Your task to perform on an android device: turn off priority inbox in the gmail app Image 0: 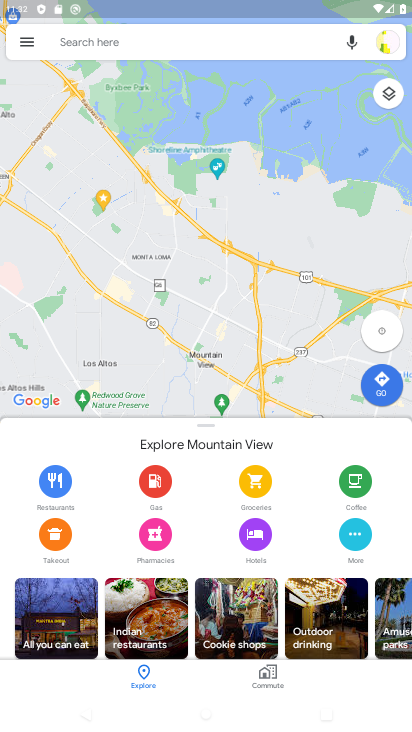
Step 0: press home button
Your task to perform on an android device: turn off priority inbox in the gmail app Image 1: 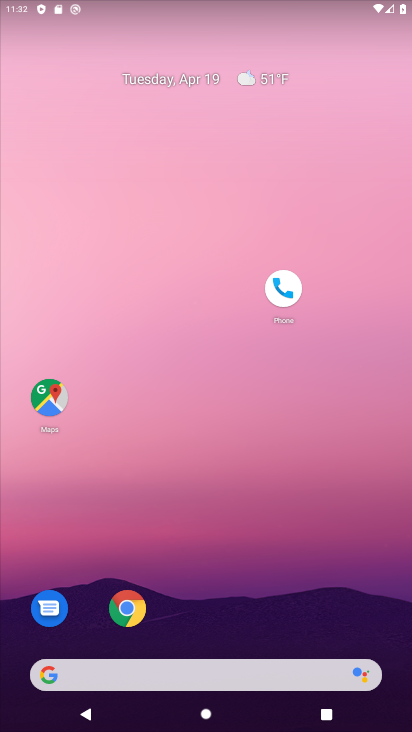
Step 1: drag from (188, 643) to (352, 0)
Your task to perform on an android device: turn off priority inbox in the gmail app Image 2: 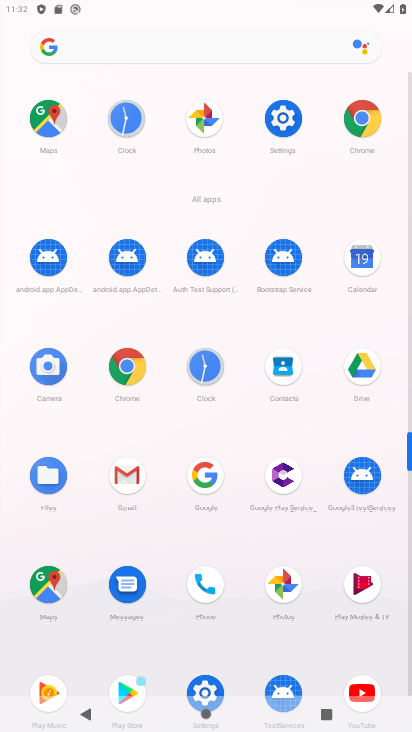
Step 2: click (128, 481)
Your task to perform on an android device: turn off priority inbox in the gmail app Image 3: 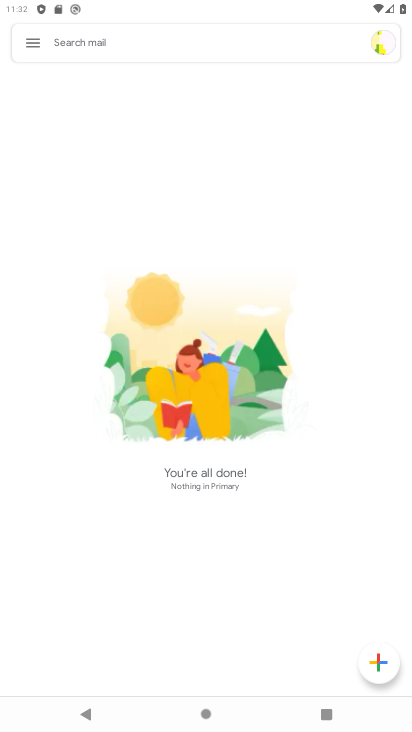
Step 3: click (31, 40)
Your task to perform on an android device: turn off priority inbox in the gmail app Image 4: 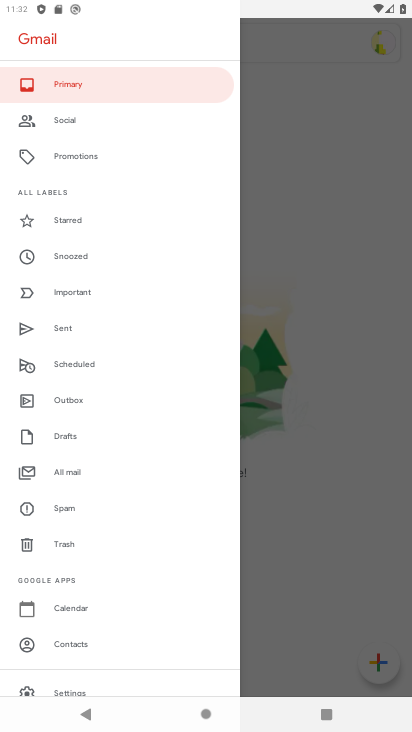
Step 4: drag from (105, 600) to (105, 475)
Your task to perform on an android device: turn off priority inbox in the gmail app Image 5: 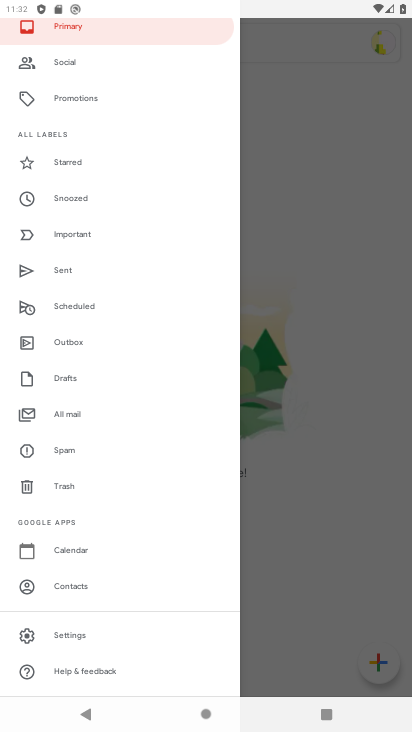
Step 5: click (62, 635)
Your task to perform on an android device: turn off priority inbox in the gmail app Image 6: 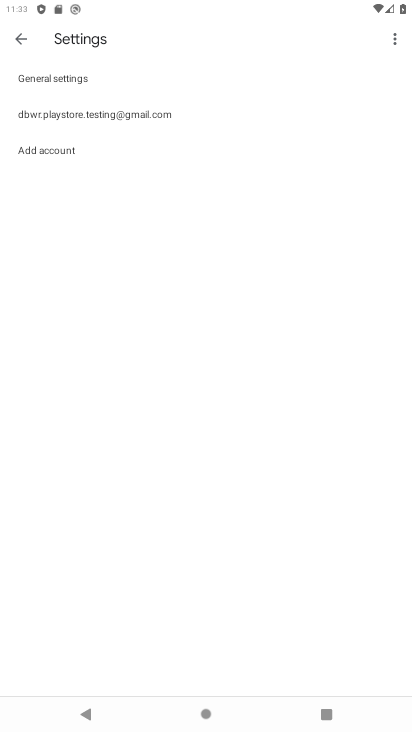
Step 6: click (117, 125)
Your task to perform on an android device: turn off priority inbox in the gmail app Image 7: 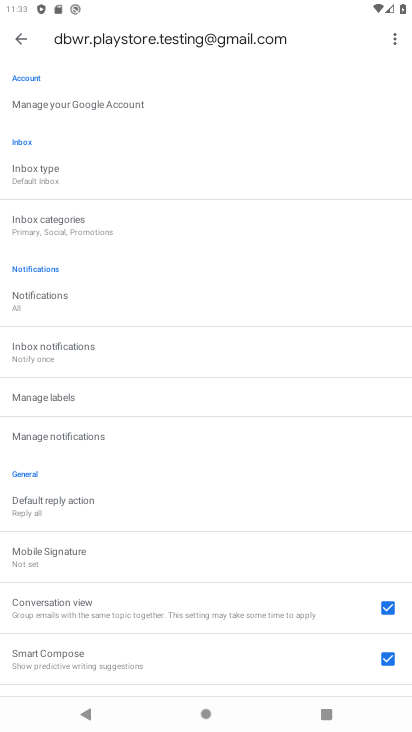
Step 7: click (38, 173)
Your task to perform on an android device: turn off priority inbox in the gmail app Image 8: 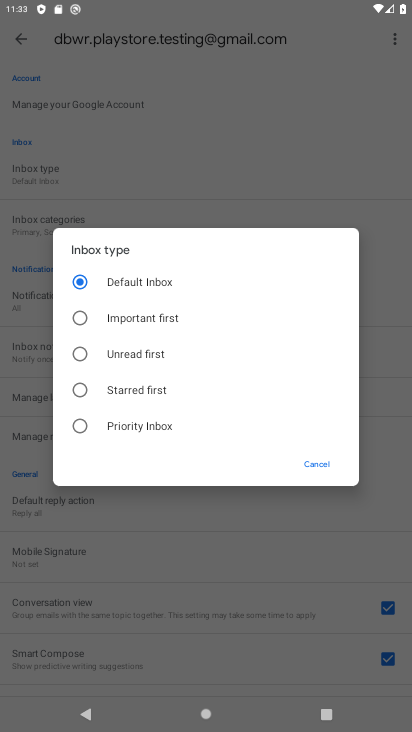
Step 8: task complete